Your task to perform on an android device: turn on wifi Image 0: 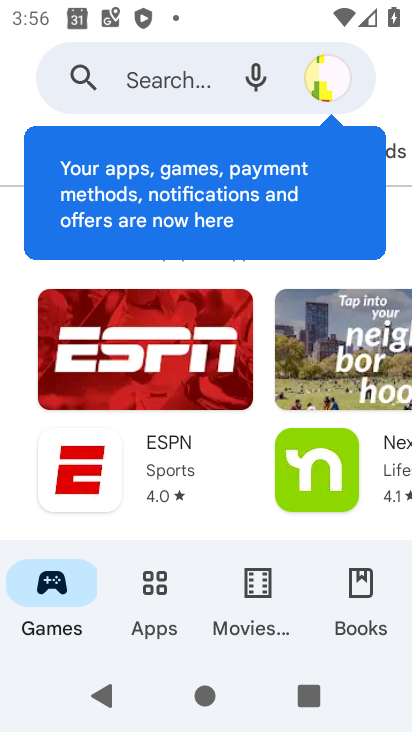
Step 0: press back button
Your task to perform on an android device: turn on wifi Image 1: 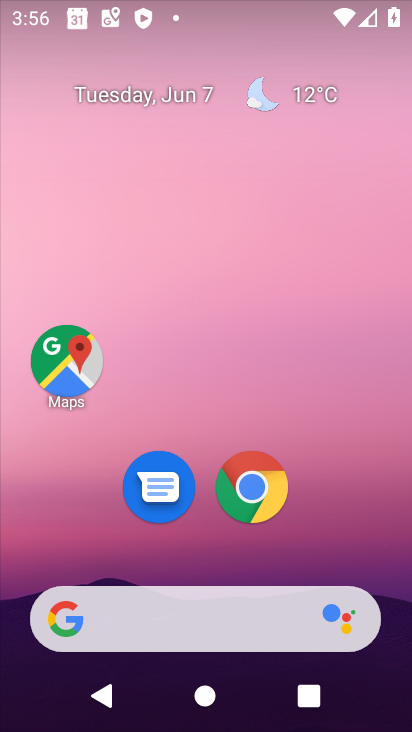
Step 1: task complete